Your task to perform on an android device: Search for flights from Mexico city to Sydney Image 0: 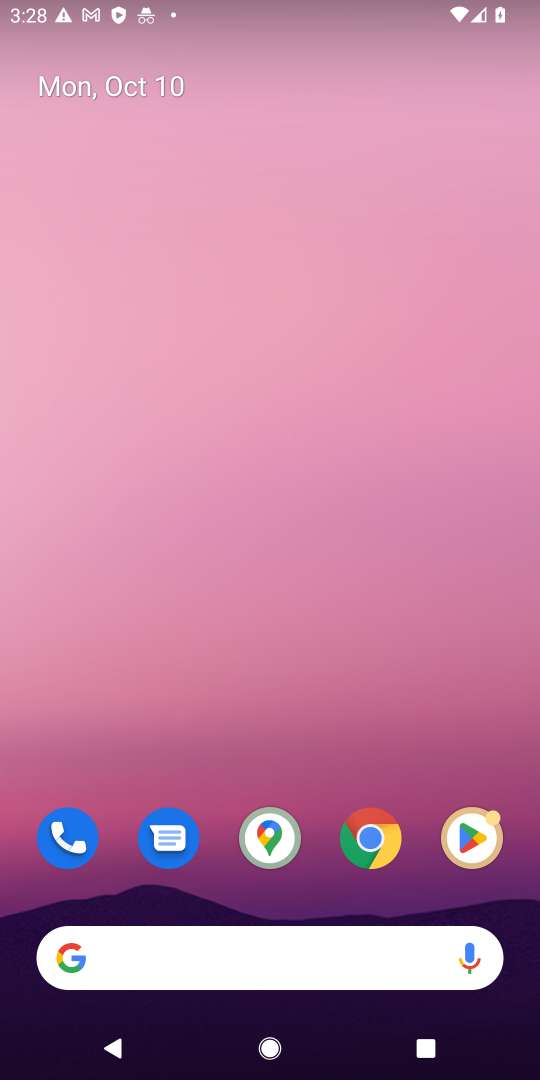
Step 0: click (373, 843)
Your task to perform on an android device: Search for flights from Mexico city to Sydney Image 1: 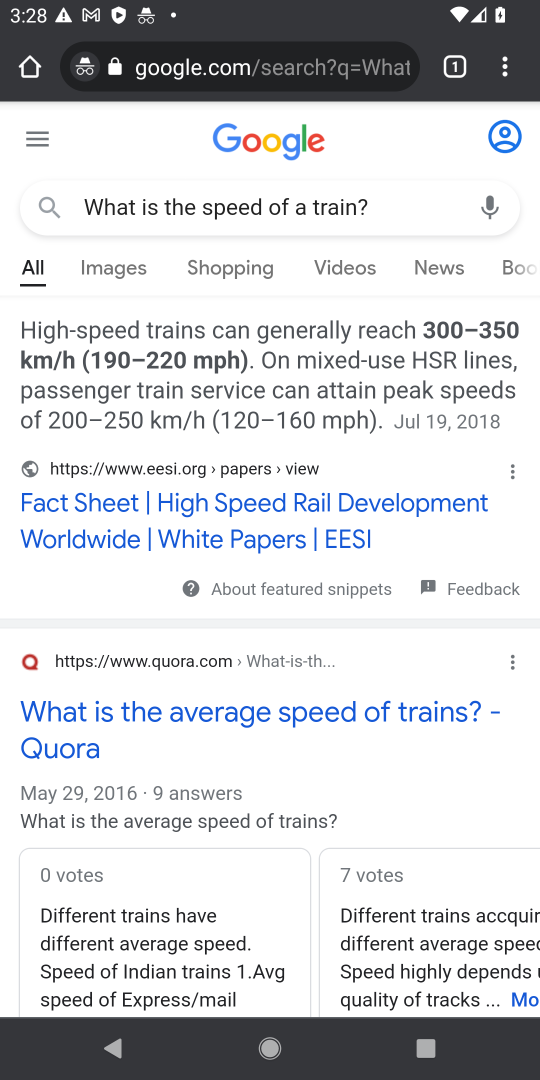
Step 1: click (134, 82)
Your task to perform on an android device: Search for flights from Mexico city to Sydney Image 2: 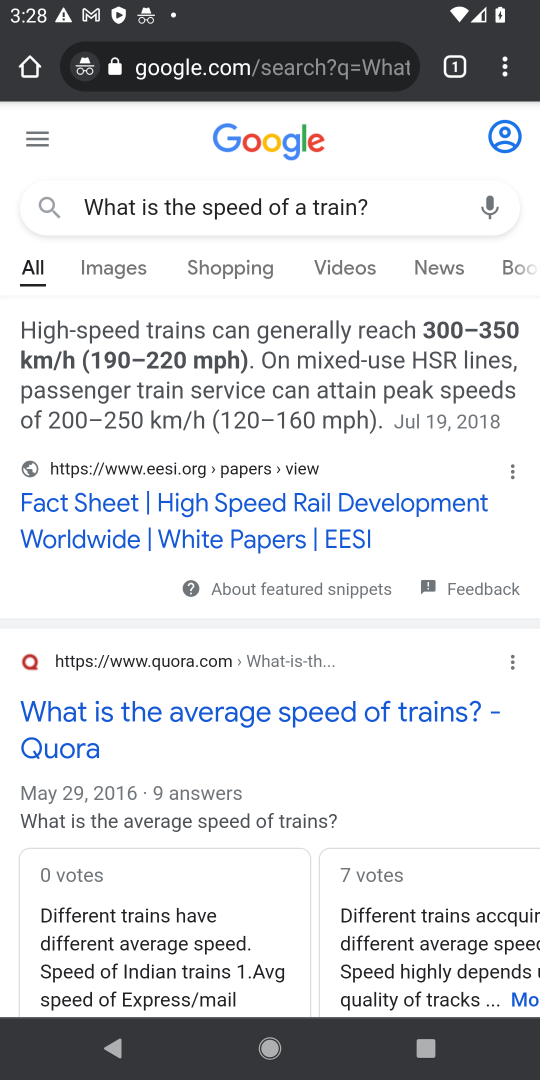
Step 2: click (234, 69)
Your task to perform on an android device: Search for flights from Mexico city to Sydney Image 3: 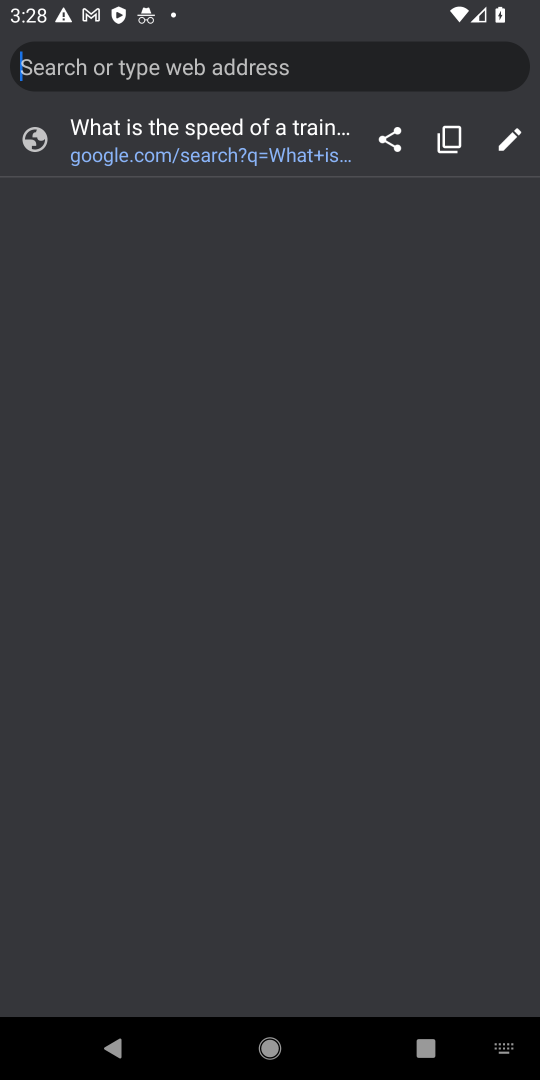
Step 3: type "Search for flights from Mexico city to Sydney"
Your task to perform on an android device: Search for flights from Mexico city to Sydney Image 4: 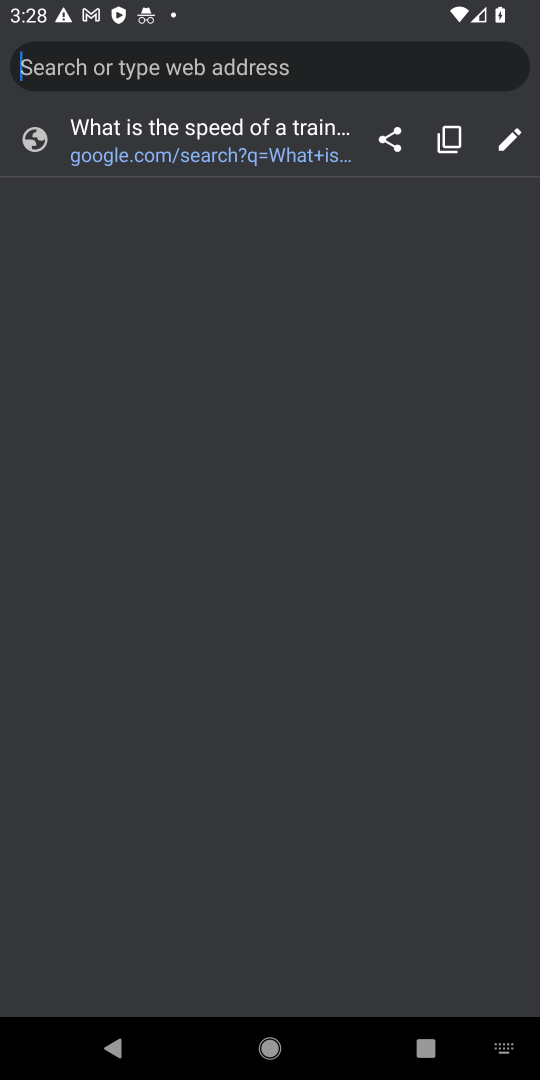
Step 4: click (383, 78)
Your task to perform on an android device: Search for flights from Mexico city to Sydney Image 5: 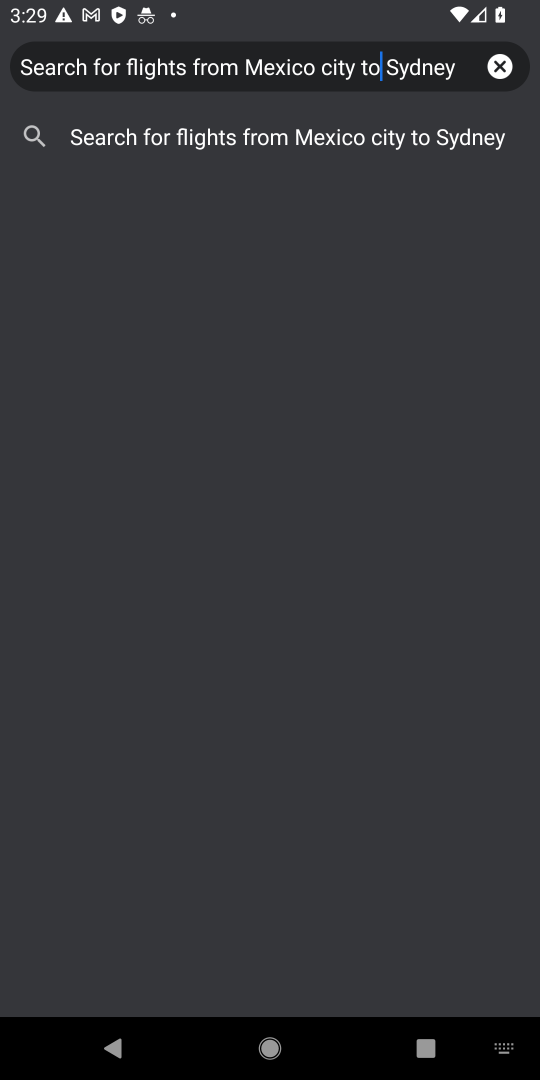
Step 5: click (348, 135)
Your task to perform on an android device: Search for flights from Mexico city to Sydney Image 6: 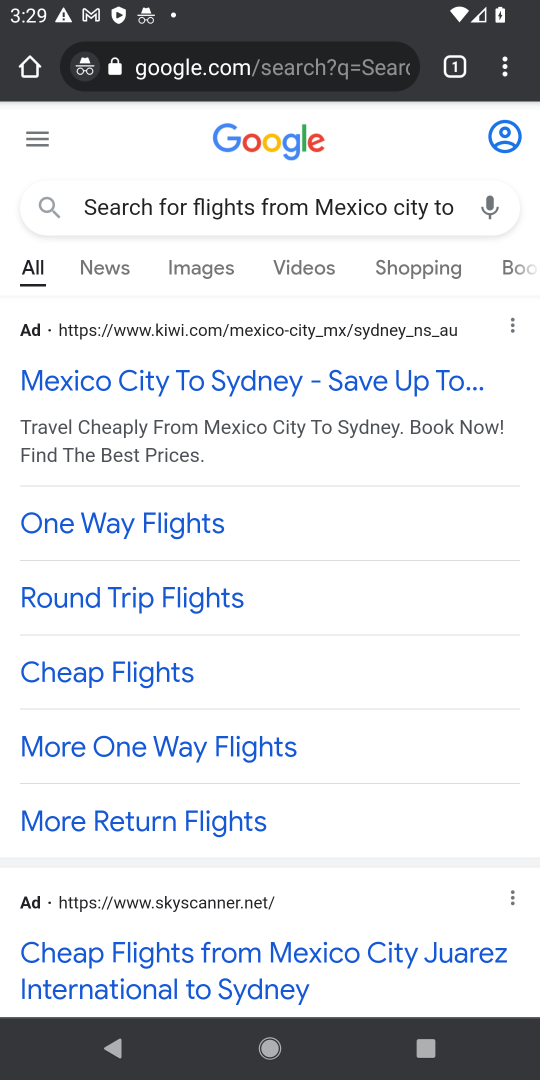
Step 6: click (240, 378)
Your task to perform on an android device: Search for flights from Mexico city to Sydney Image 7: 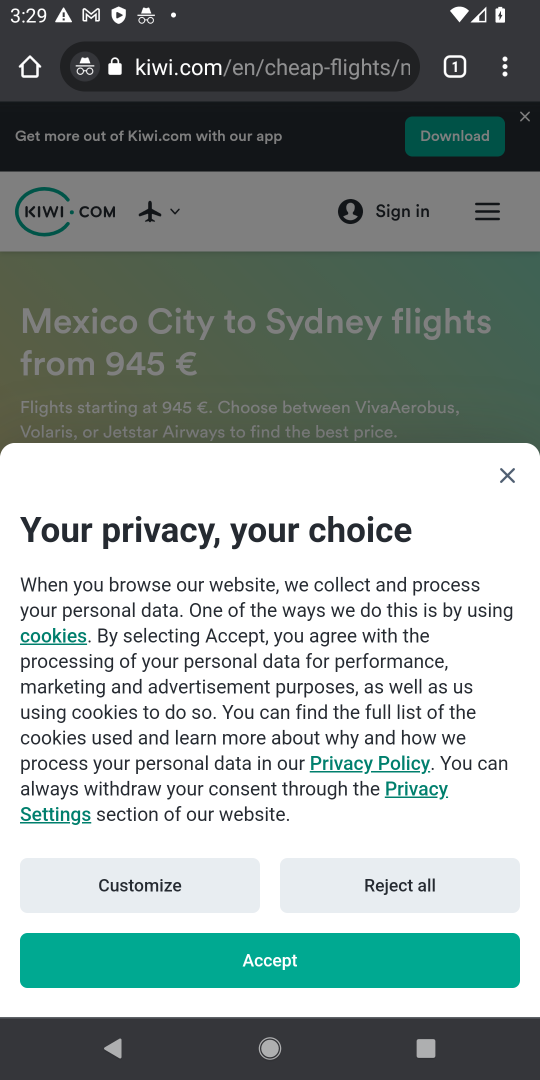
Step 7: click (502, 477)
Your task to perform on an android device: Search for flights from Mexico city to Sydney Image 8: 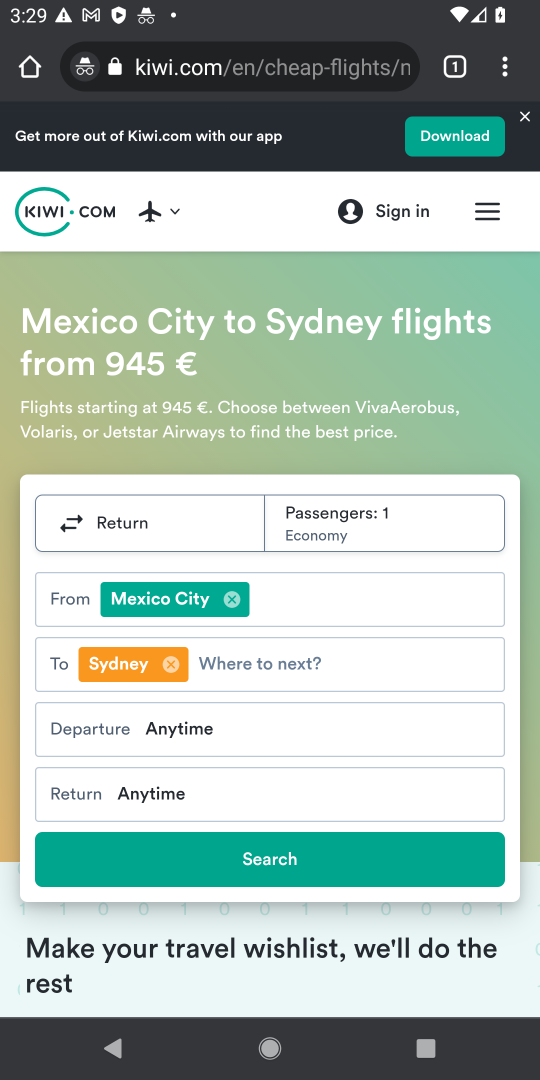
Step 8: task complete